Your task to perform on an android device: Open Chrome and go to the settings page Image 0: 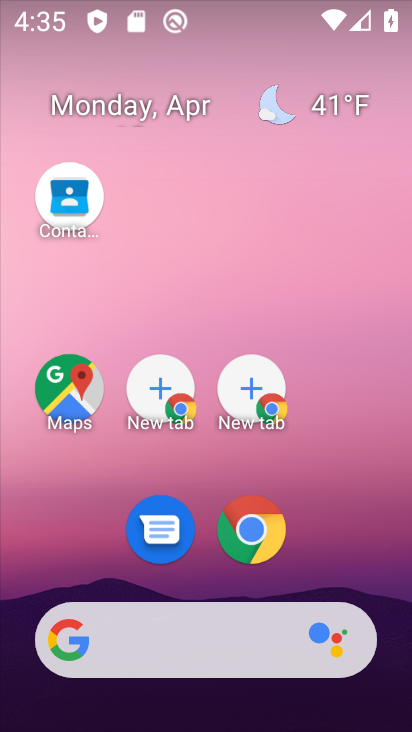
Step 0: click (253, 526)
Your task to perform on an android device: Open Chrome and go to the settings page Image 1: 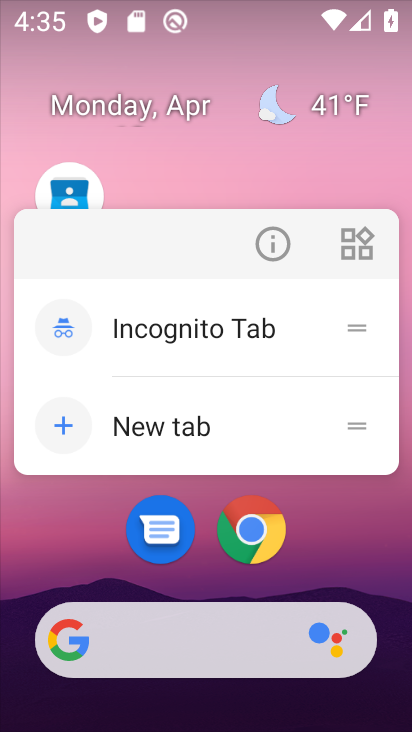
Step 1: click (255, 530)
Your task to perform on an android device: Open Chrome and go to the settings page Image 2: 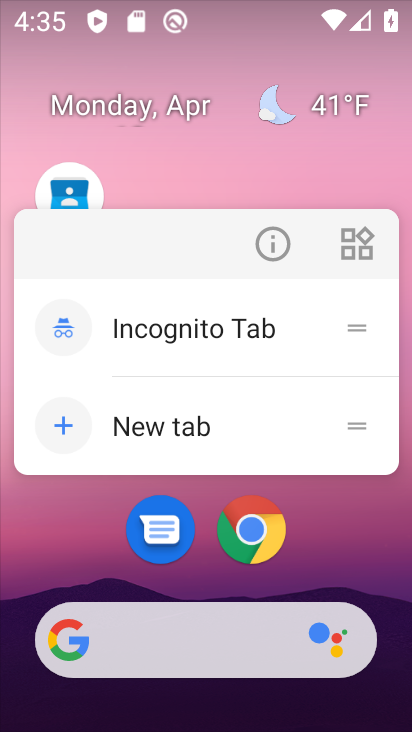
Step 2: click (255, 532)
Your task to perform on an android device: Open Chrome and go to the settings page Image 3: 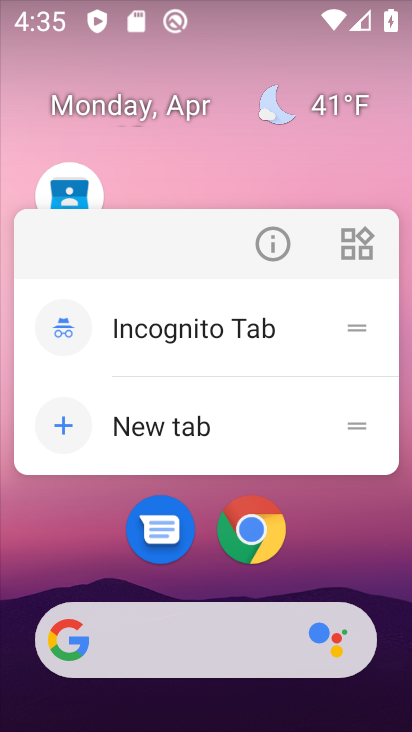
Step 3: click (255, 532)
Your task to perform on an android device: Open Chrome and go to the settings page Image 4: 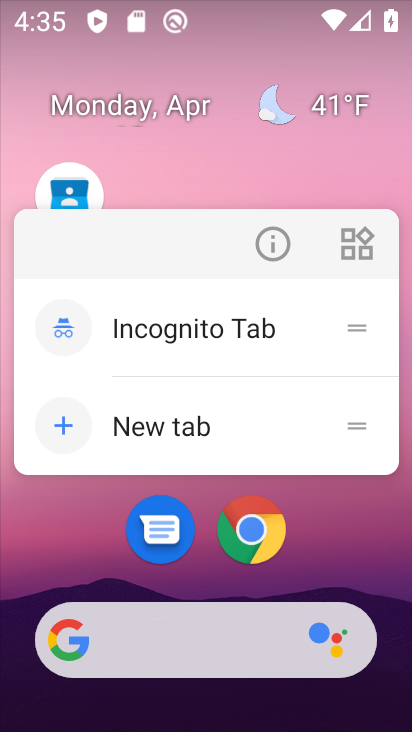
Step 4: click (246, 522)
Your task to perform on an android device: Open Chrome and go to the settings page Image 5: 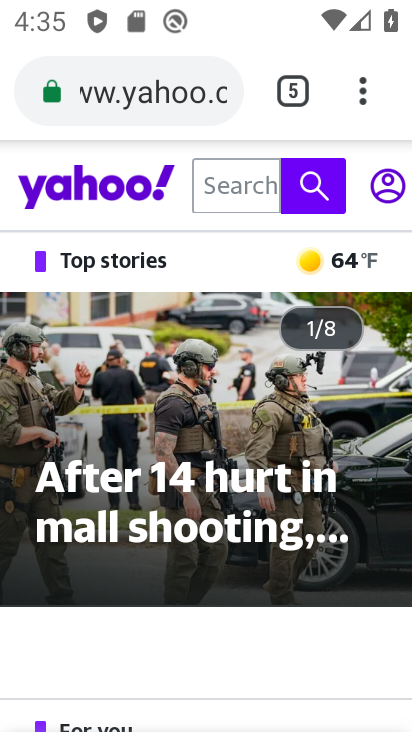
Step 5: click (367, 77)
Your task to perform on an android device: Open Chrome and go to the settings page Image 6: 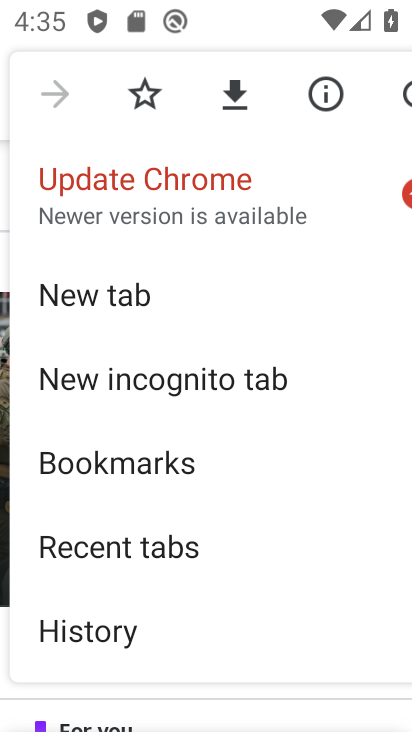
Step 6: drag from (130, 662) to (285, 58)
Your task to perform on an android device: Open Chrome and go to the settings page Image 7: 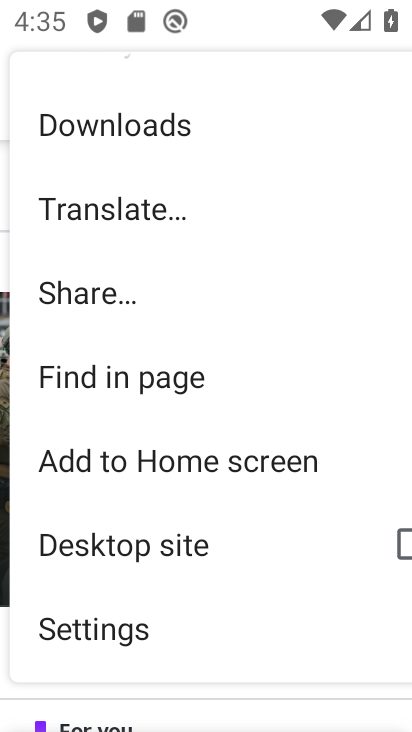
Step 7: click (139, 646)
Your task to perform on an android device: Open Chrome and go to the settings page Image 8: 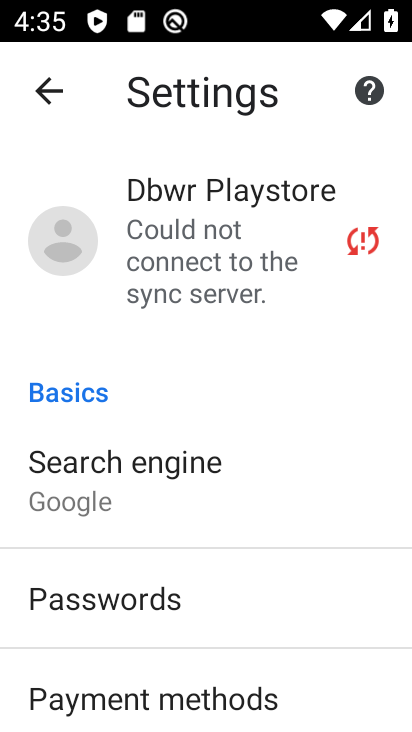
Step 8: task complete